Your task to perform on an android device: Go to sound settings Image 0: 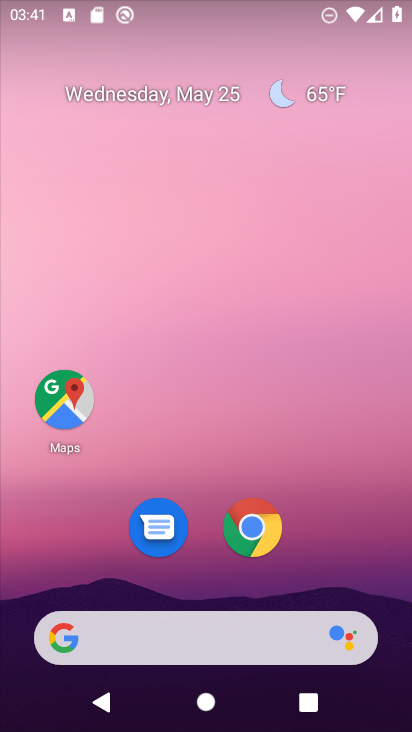
Step 0: drag from (236, 587) to (259, 146)
Your task to perform on an android device: Go to sound settings Image 1: 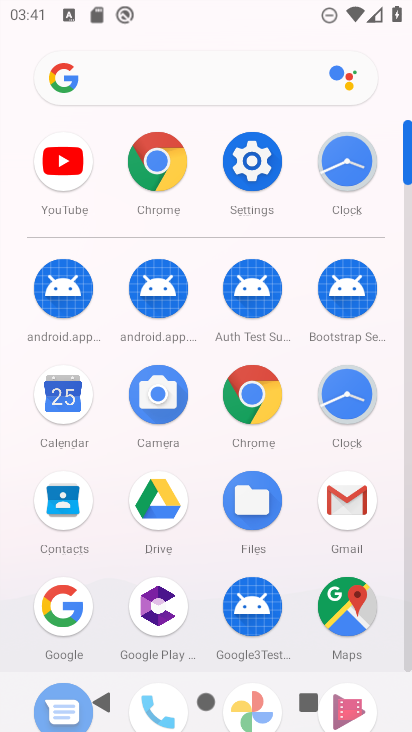
Step 1: click (270, 158)
Your task to perform on an android device: Go to sound settings Image 2: 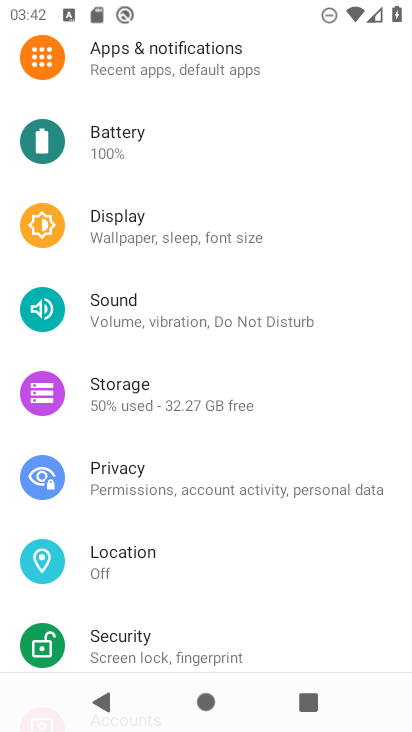
Step 2: click (144, 293)
Your task to perform on an android device: Go to sound settings Image 3: 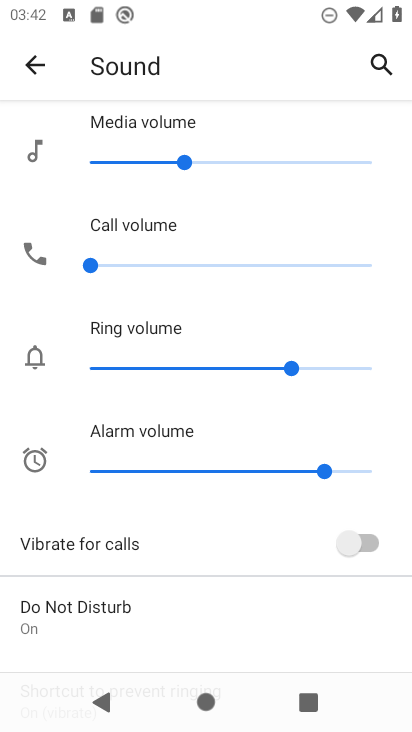
Step 3: task complete